Your task to perform on an android device: install app "Fetch Rewards" Image 0: 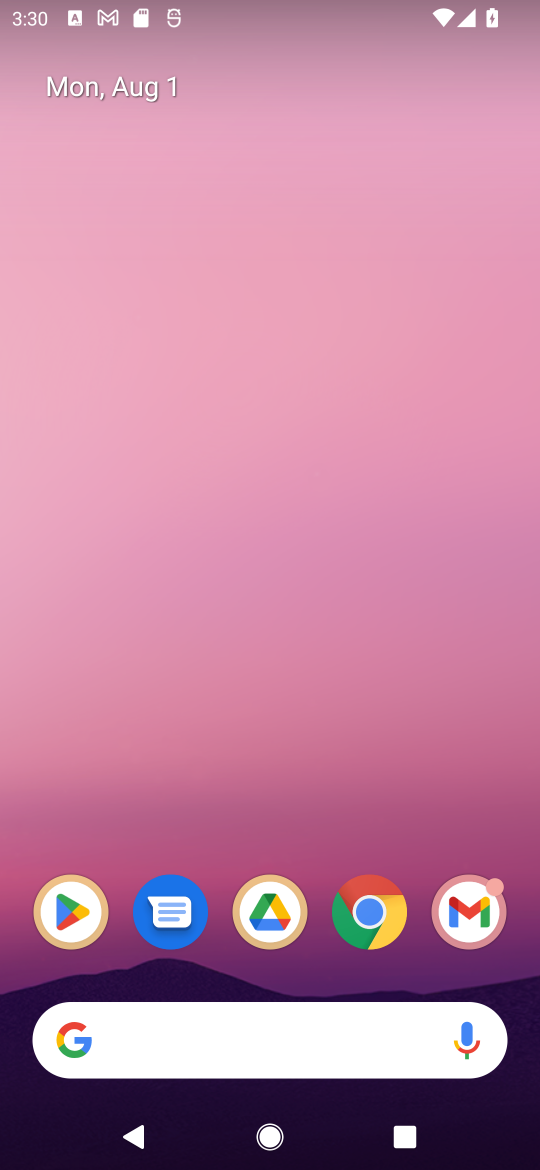
Step 0: click (63, 920)
Your task to perform on an android device: install app "Fetch Rewards" Image 1: 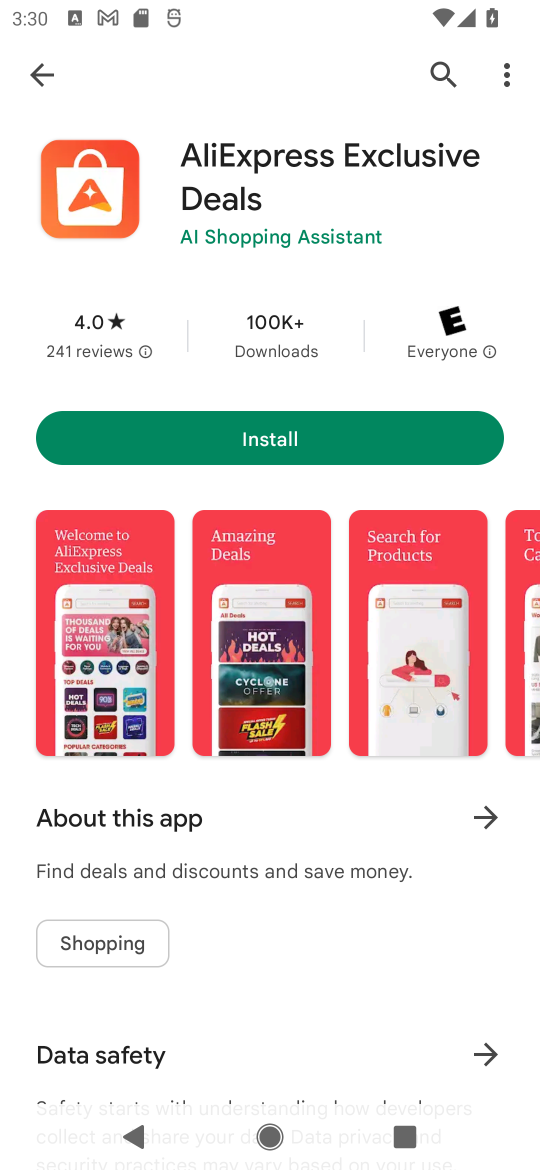
Step 1: click (442, 63)
Your task to perform on an android device: install app "Fetch Rewards" Image 2: 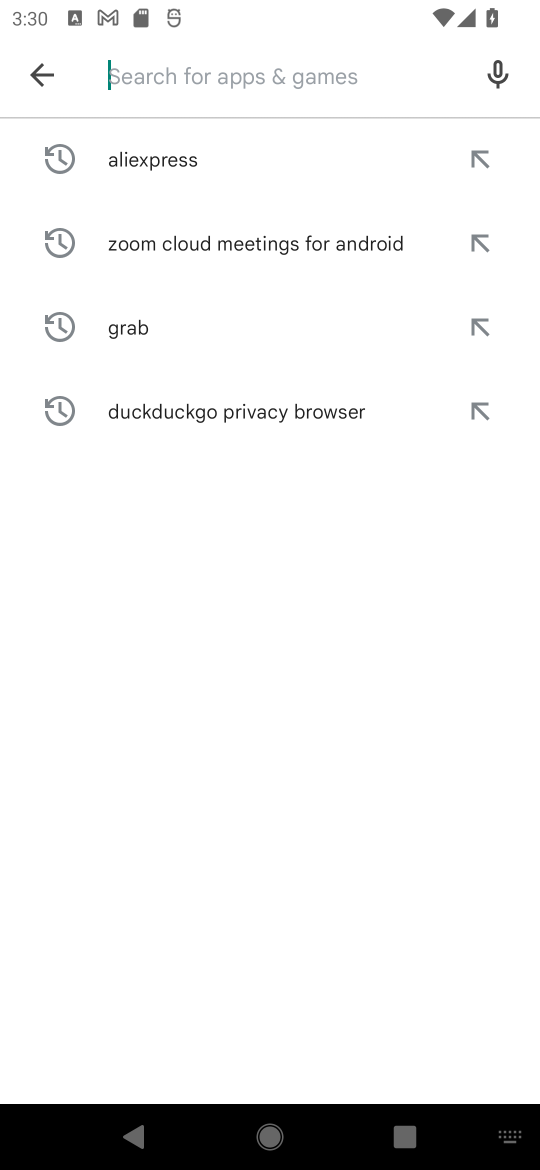
Step 2: click (294, 96)
Your task to perform on an android device: install app "Fetch Rewards" Image 3: 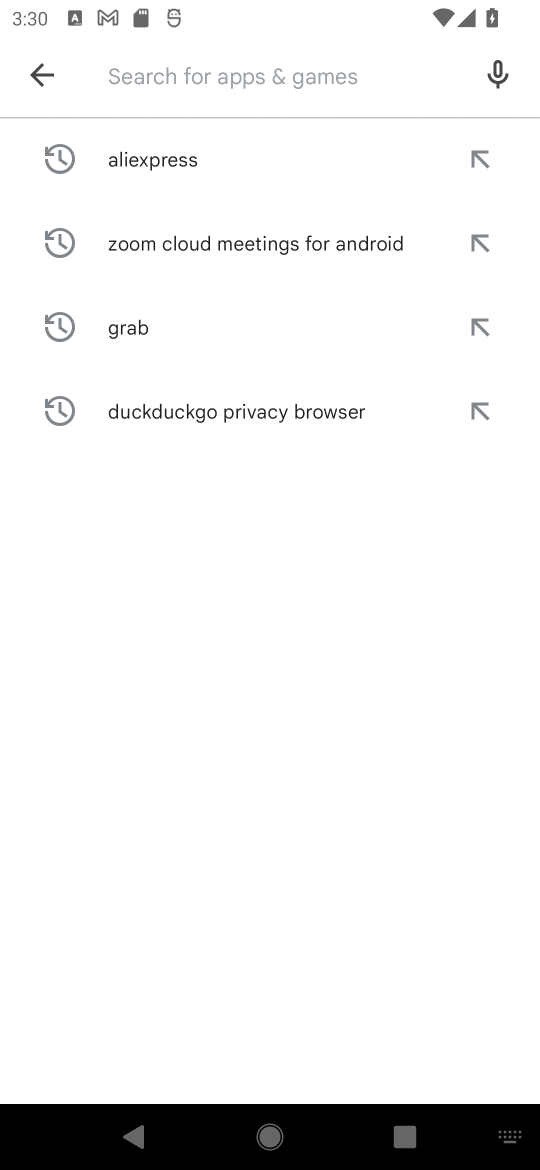
Step 3: type "Fetch Rewards"
Your task to perform on an android device: install app "Fetch Rewards" Image 4: 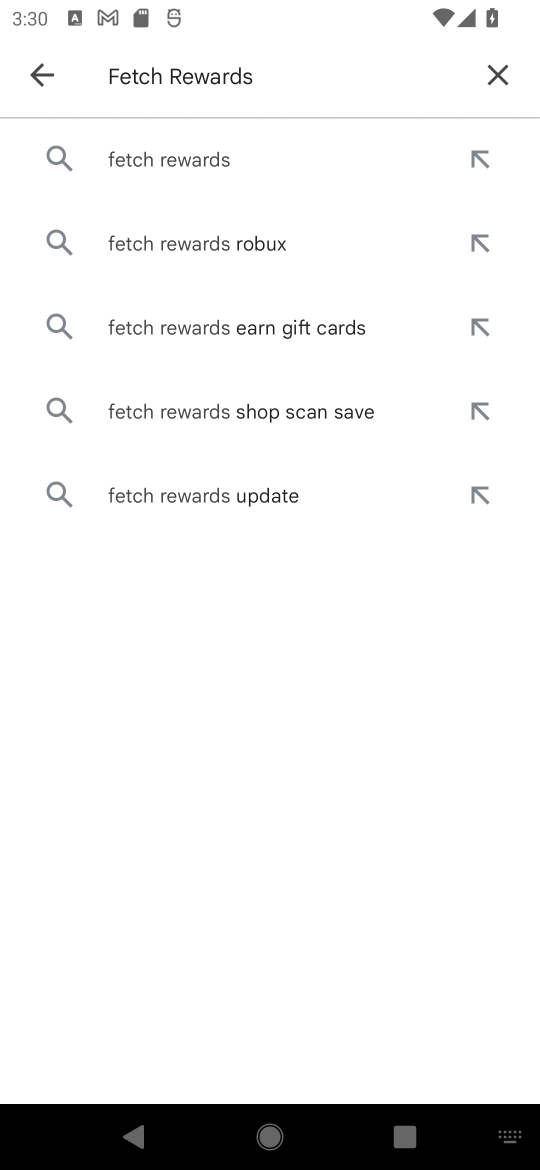
Step 4: click (143, 156)
Your task to perform on an android device: install app "Fetch Rewards" Image 5: 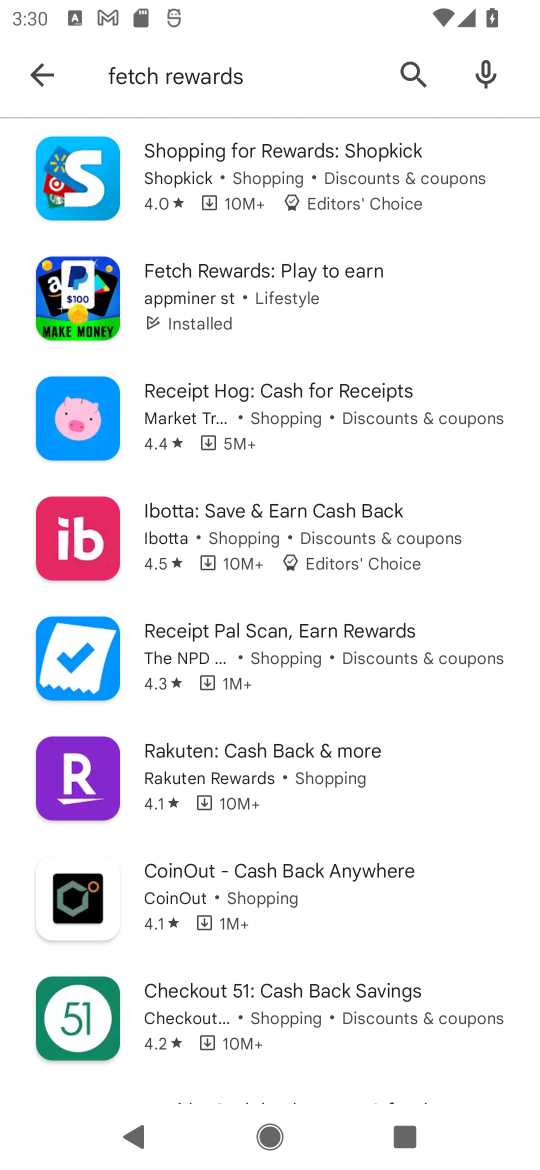
Step 5: click (164, 291)
Your task to perform on an android device: install app "Fetch Rewards" Image 6: 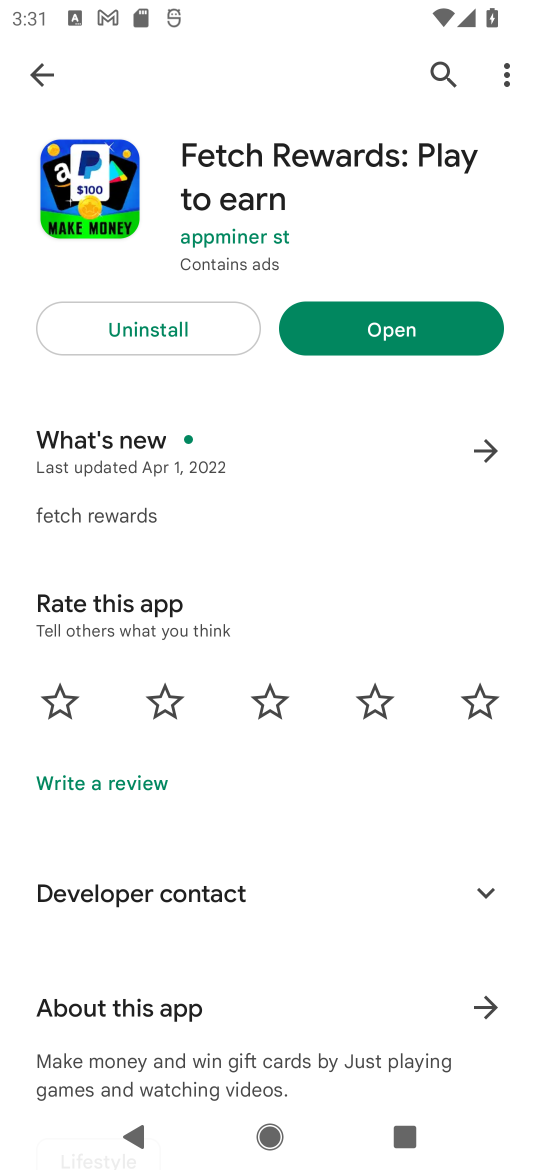
Step 6: task complete